Your task to perform on an android device: Open the web browser Image 0: 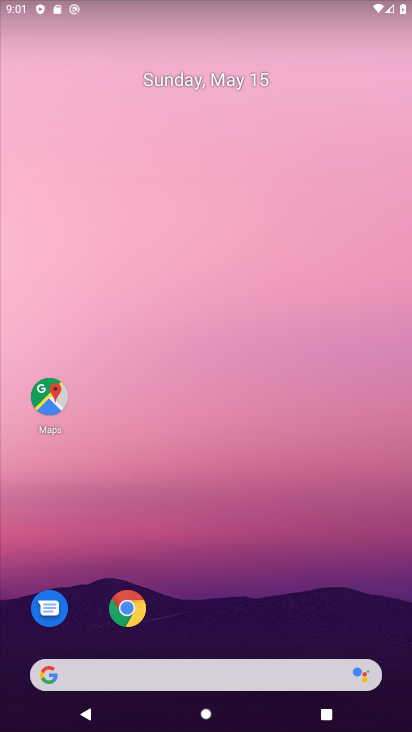
Step 0: drag from (346, 385) to (351, 55)
Your task to perform on an android device: Open the web browser Image 1: 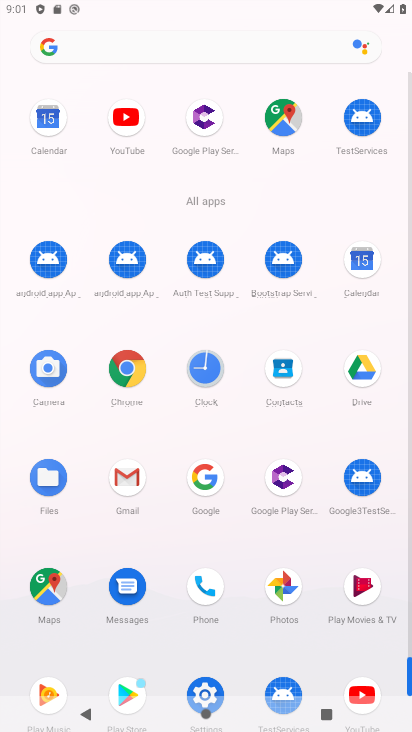
Step 1: click (113, 382)
Your task to perform on an android device: Open the web browser Image 2: 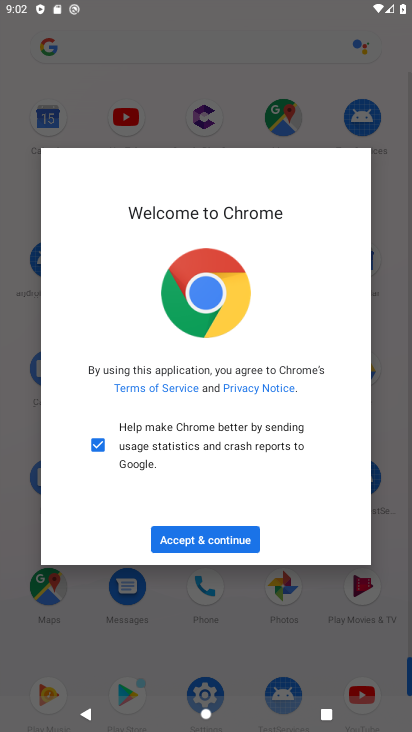
Step 2: click (240, 537)
Your task to perform on an android device: Open the web browser Image 3: 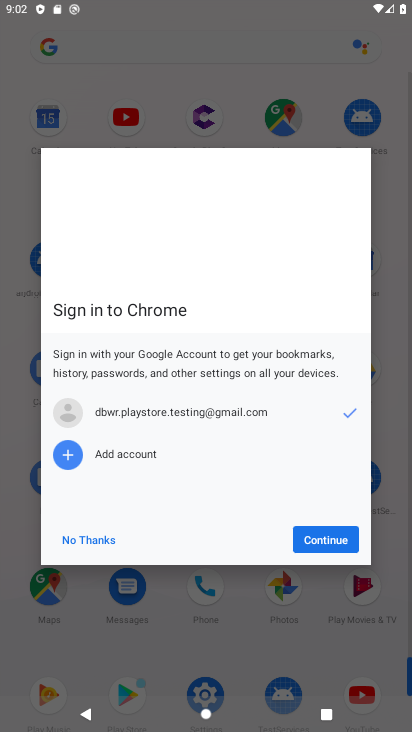
Step 3: click (328, 546)
Your task to perform on an android device: Open the web browser Image 4: 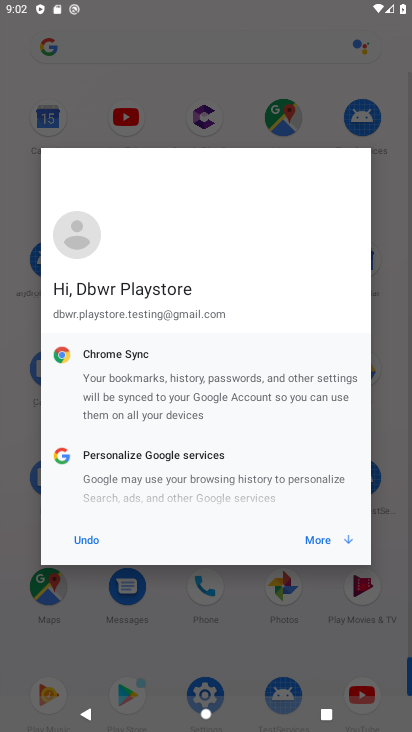
Step 4: click (312, 545)
Your task to perform on an android device: Open the web browser Image 5: 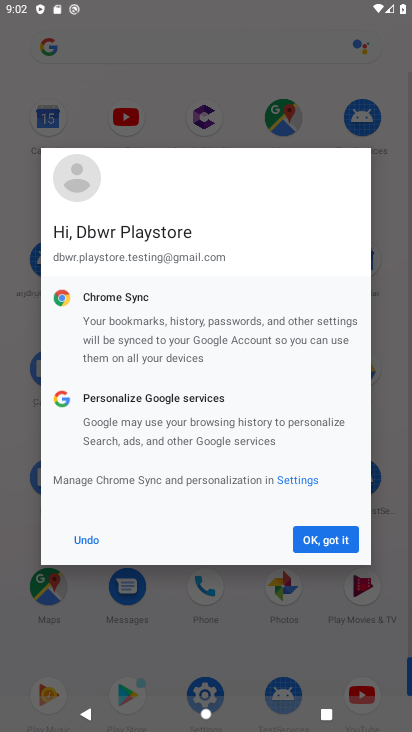
Step 5: click (333, 542)
Your task to perform on an android device: Open the web browser Image 6: 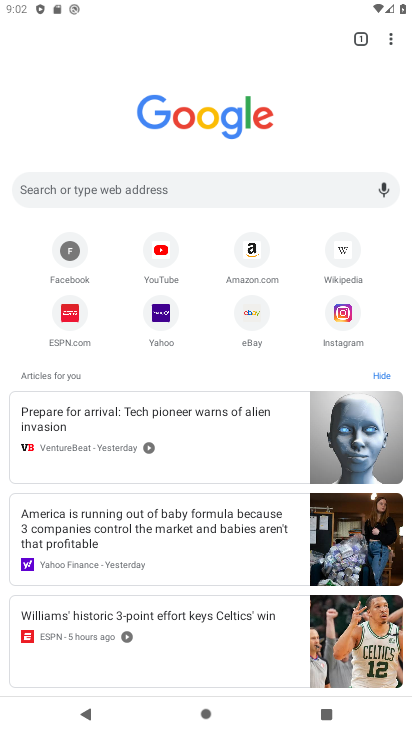
Step 6: task complete